Your task to perform on an android device: empty trash in the gmail app Image 0: 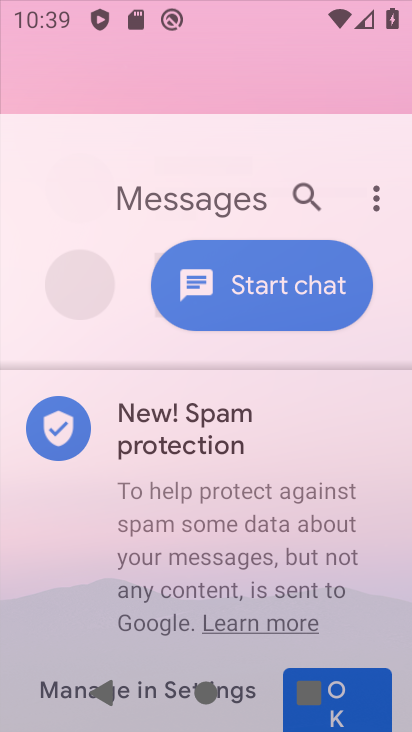
Step 0: click (410, 2)
Your task to perform on an android device: empty trash in the gmail app Image 1: 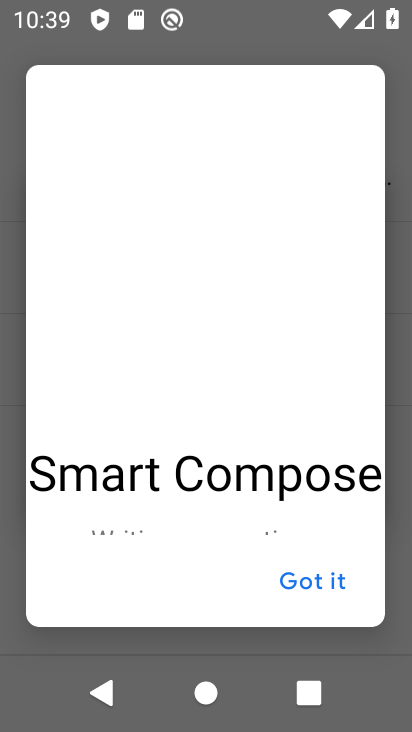
Step 1: press home button
Your task to perform on an android device: empty trash in the gmail app Image 2: 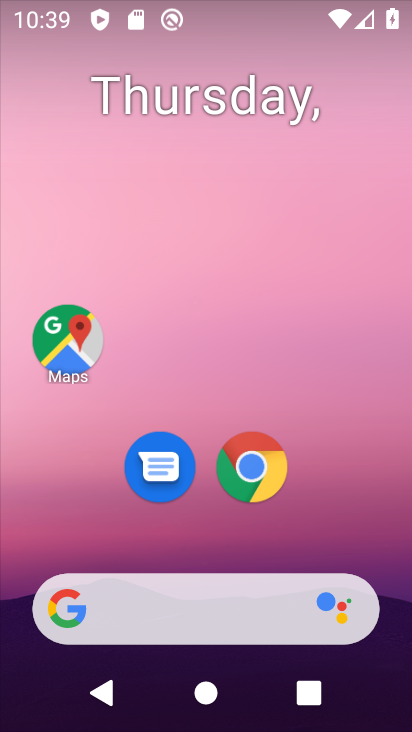
Step 2: drag from (316, 453) to (339, 33)
Your task to perform on an android device: empty trash in the gmail app Image 3: 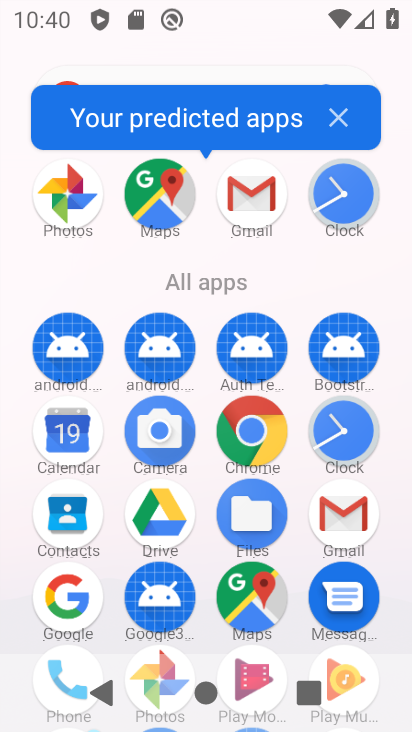
Step 3: click (248, 190)
Your task to perform on an android device: empty trash in the gmail app Image 4: 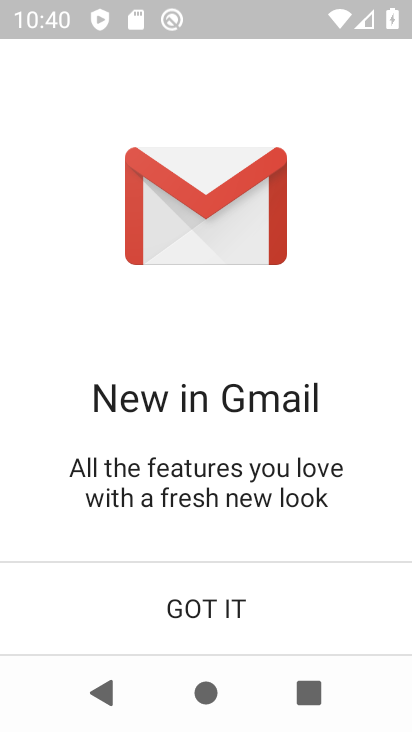
Step 4: click (176, 614)
Your task to perform on an android device: empty trash in the gmail app Image 5: 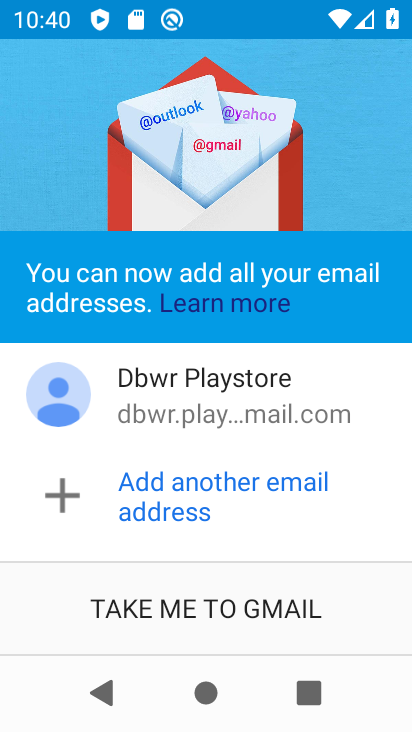
Step 5: click (176, 614)
Your task to perform on an android device: empty trash in the gmail app Image 6: 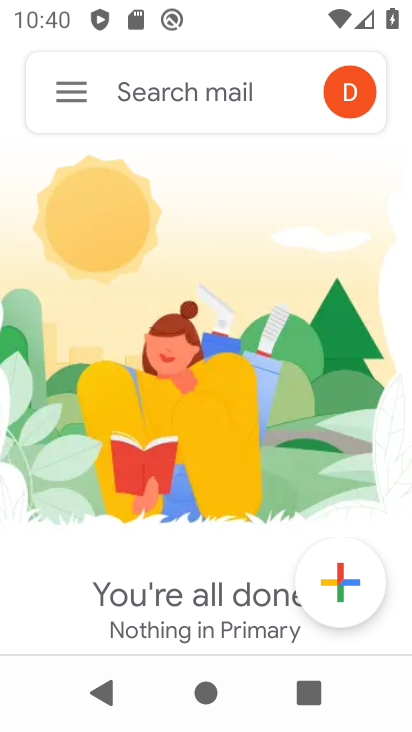
Step 6: click (65, 97)
Your task to perform on an android device: empty trash in the gmail app Image 7: 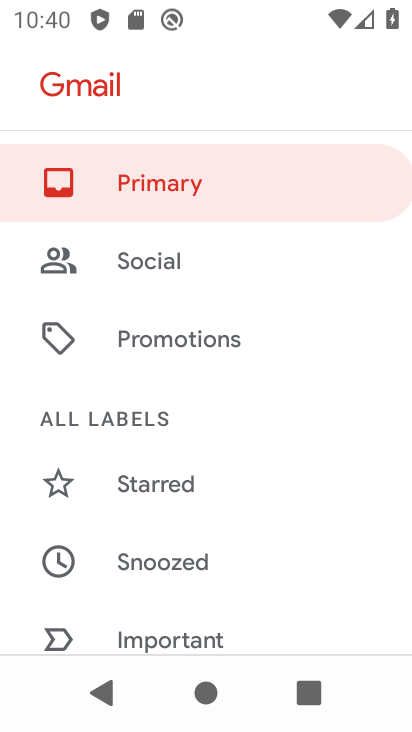
Step 7: drag from (234, 545) to (215, 224)
Your task to perform on an android device: empty trash in the gmail app Image 8: 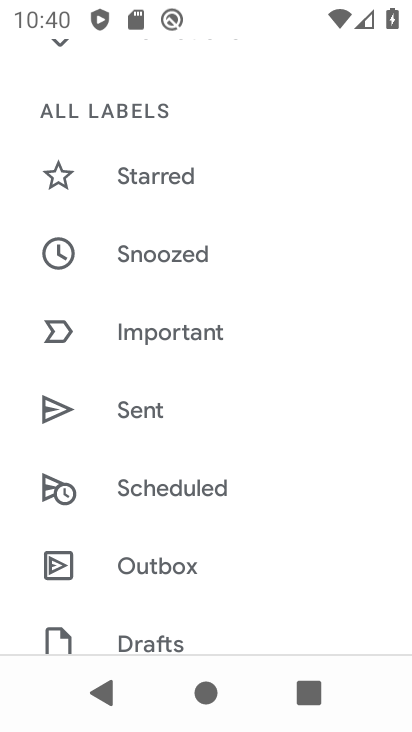
Step 8: drag from (248, 572) to (208, 182)
Your task to perform on an android device: empty trash in the gmail app Image 9: 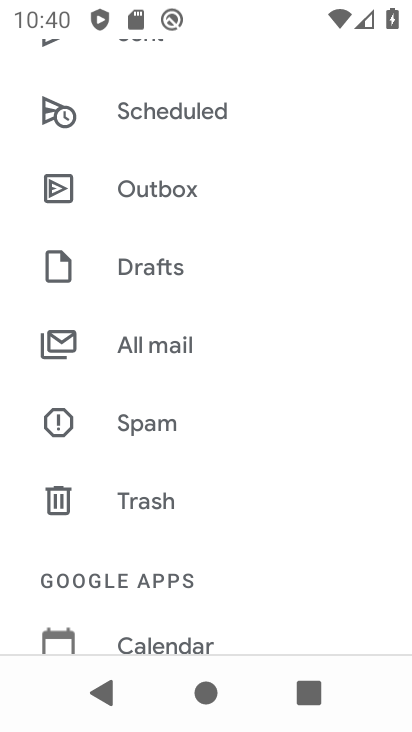
Step 9: click (121, 506)
Your task to perform on an android device: empty trash in the gmail app Image 10: 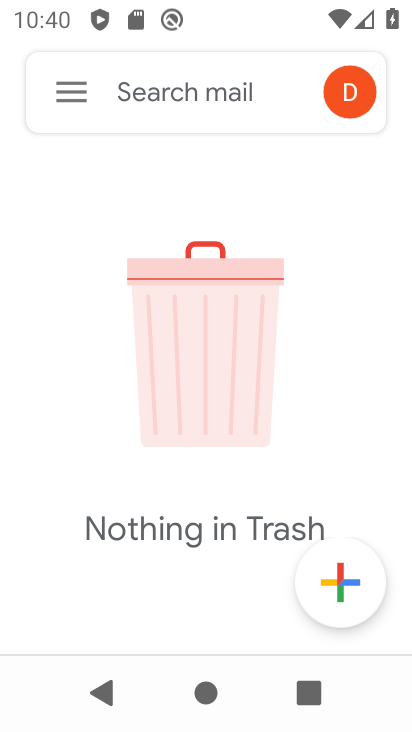
Step 10: task complete